Your task to perform on an android device: Go to Amazon Image 0: 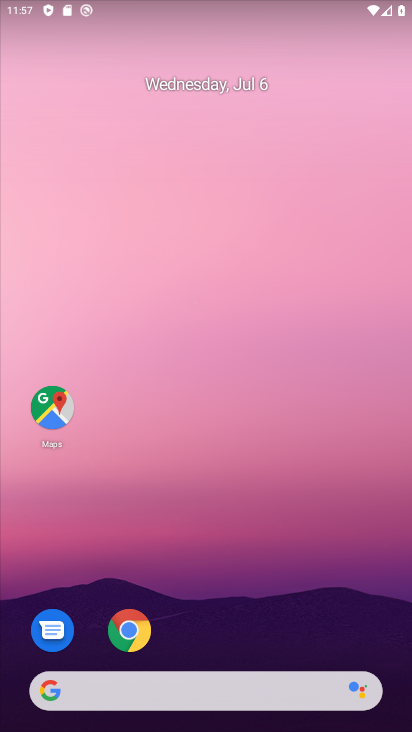
Step 0: click (124, 632)
Your task to perform on an android device: Go to Amazon Image 1: 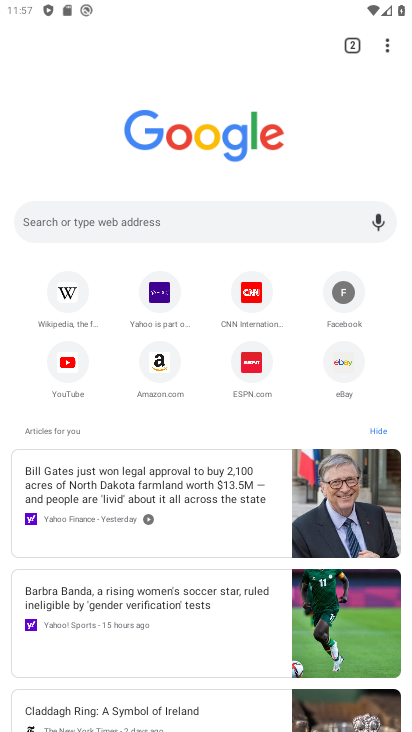
Step 1: click (167, 383)
Your task to perform on an android device: Go to Amazon Image 2: 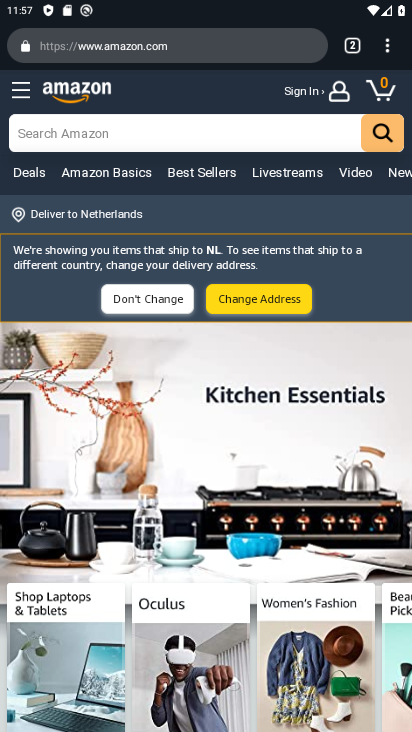
Step 2: task complete